Your task to perform on an android device: change text size in settings app Image 0: 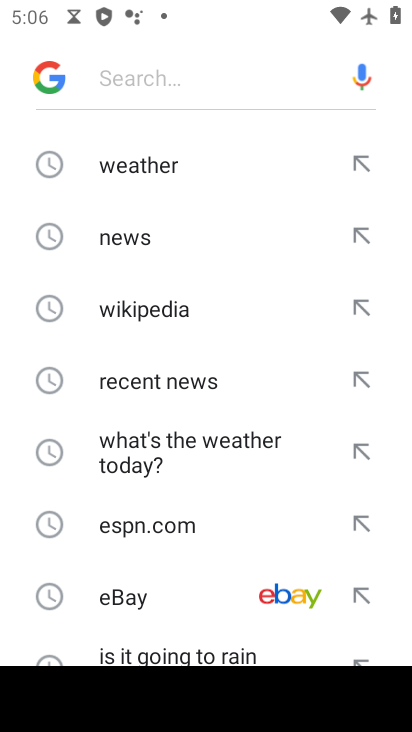
Step 0: press back button
Your task to perform on an android device: change text size in settings app Image 1: 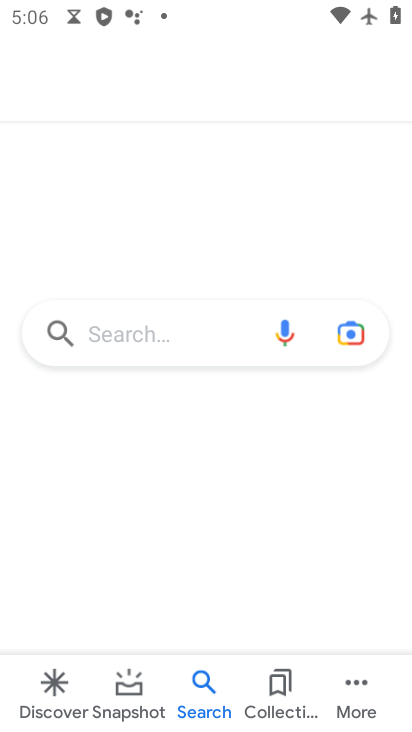
Step 1: press home button
Your task to perform on an android device: change text size in settings app Image 2: 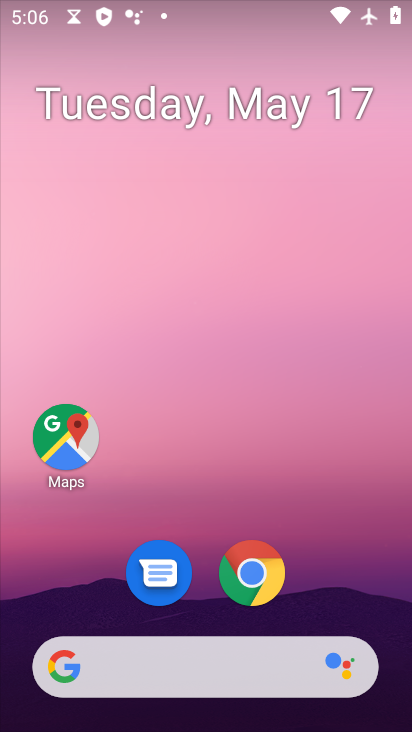
Step 2: drag from (319, 635) to (200, 61)
Your task to perform on an android device: change text size in settings app Image 3: 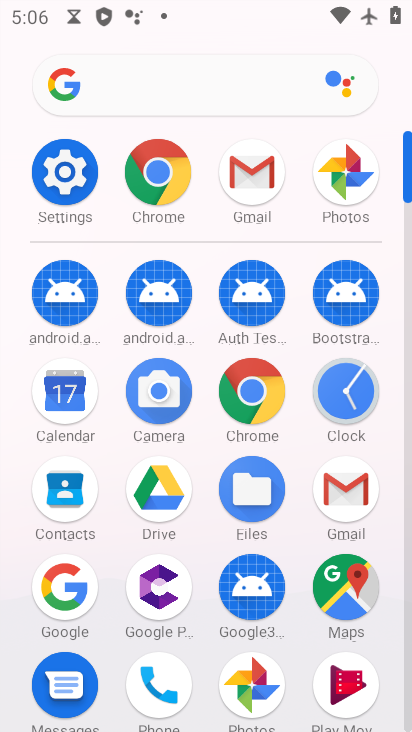
Step 3: click (54, 177)
Your task to perform on an android device: change text size in settings app Image 4: 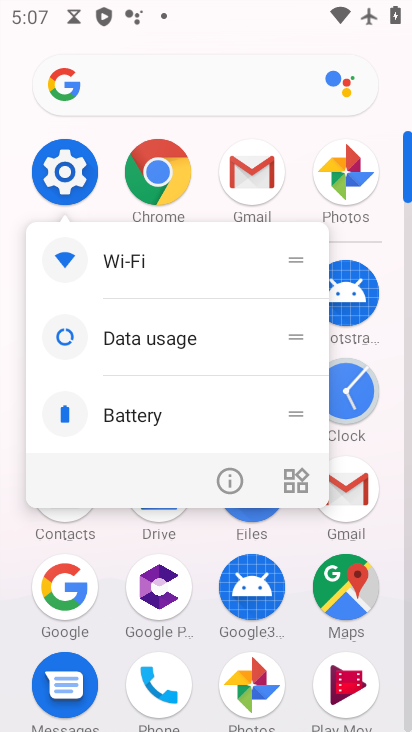
Step 4: click (60, 181)
Your task to perform on an android device: change text size in settings app Image 5: 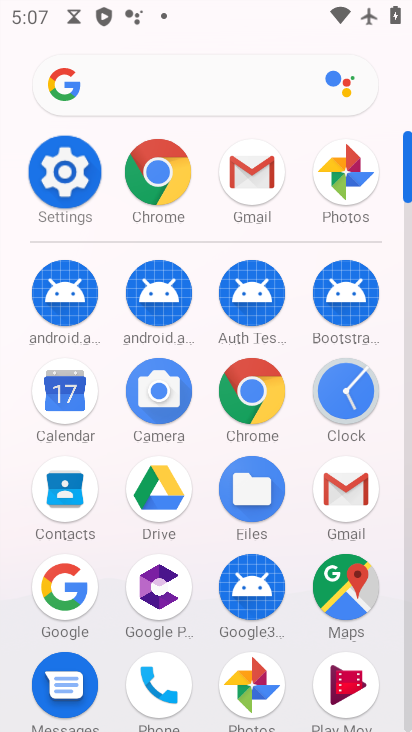
Step 5: click (65, 182)
Your task to perform on an android device: change text size in settings app Image 6: 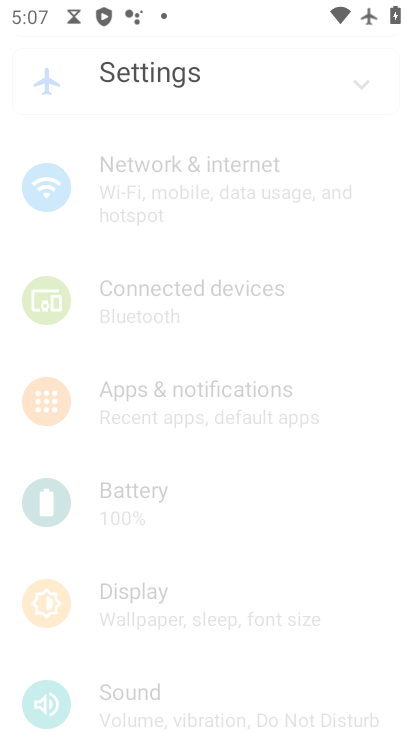
Step 6: click (66, 182)
Your task to perform on an android device: change text size in settings app Image 7: 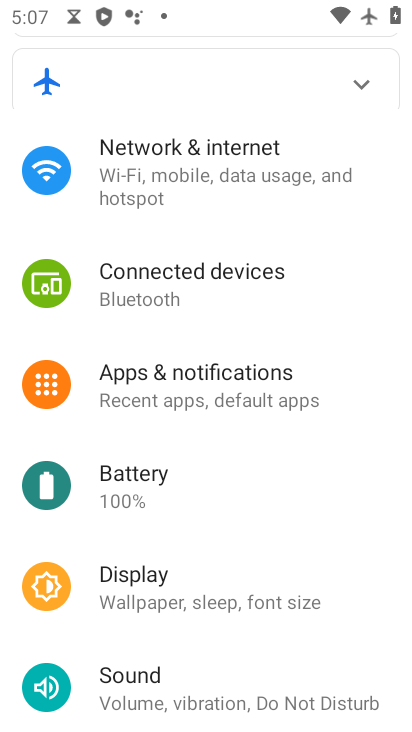
Step 7: click (66, 182)
Your task to perform on an android device: change text size in settings app Image 8: 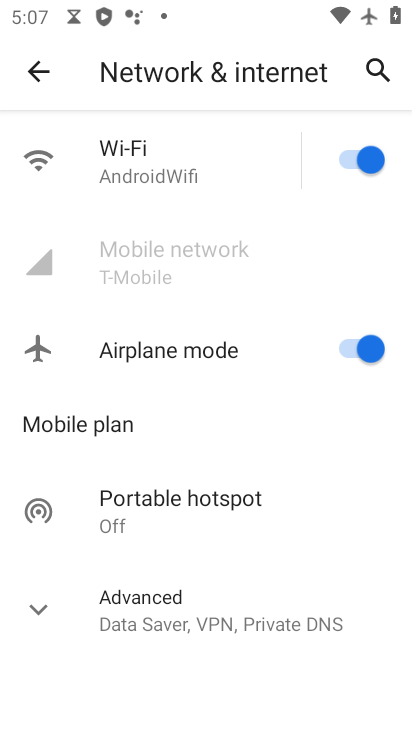
Step 8: click (33, 66)
Your task to perform on an android device: change text size in settings app Image 9: 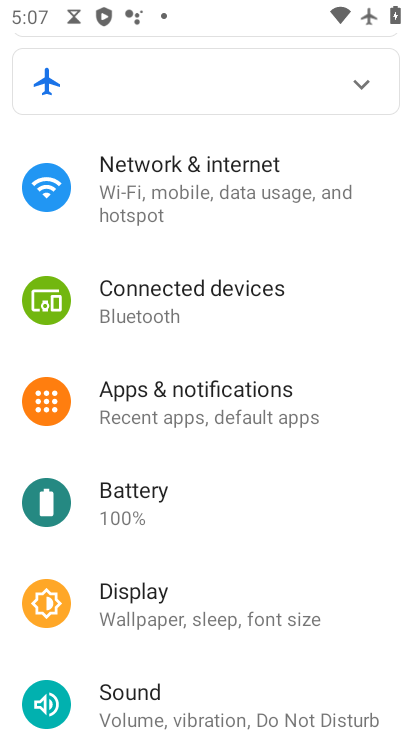
Step 9: drag from (179, 609) to (180, 247)
Your task to perform on an android device: change text size in settings app Image 10: 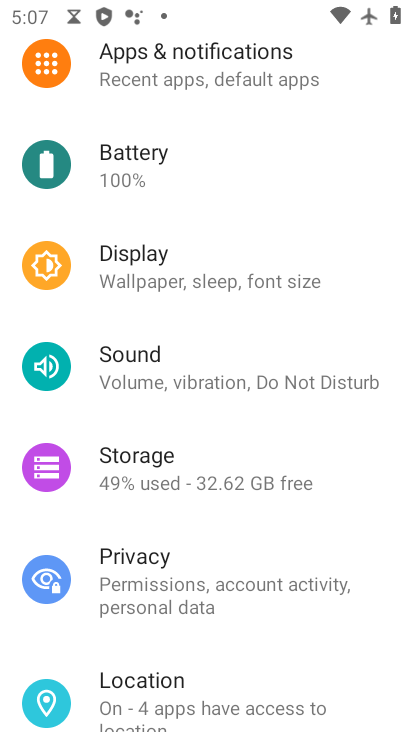
Step 10: drag from (214, 629) to (192, 381)
Your task to perform on an android device: change text size in settings app Image 11: 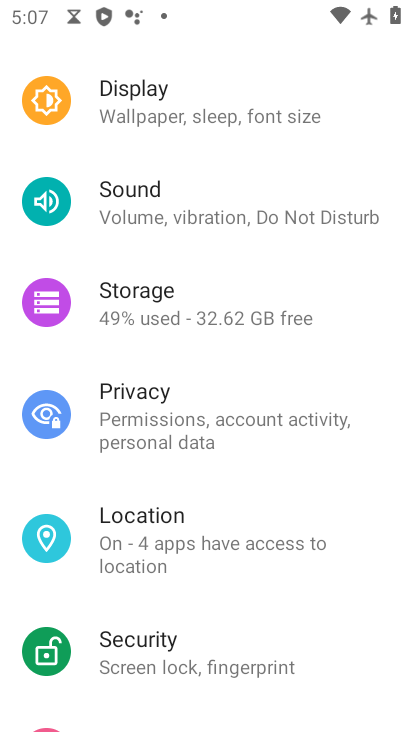
Step 11: click (133, 105)
Your task to perform on an android device: change text size in settings app Image 12: 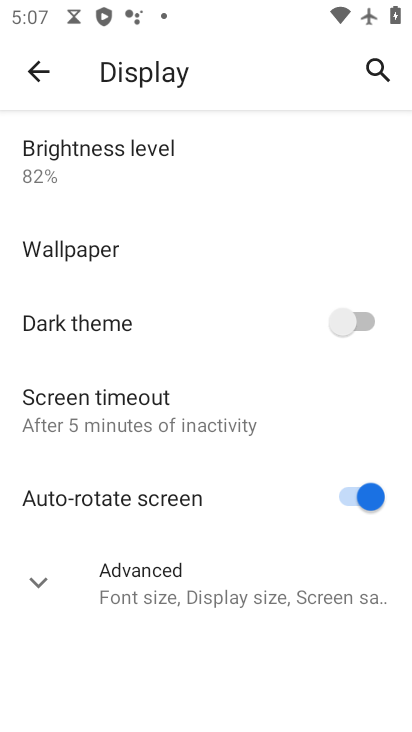
Step 12: click (129, 414)
Your task to perform on an android device: change text size in settings app Image 13: 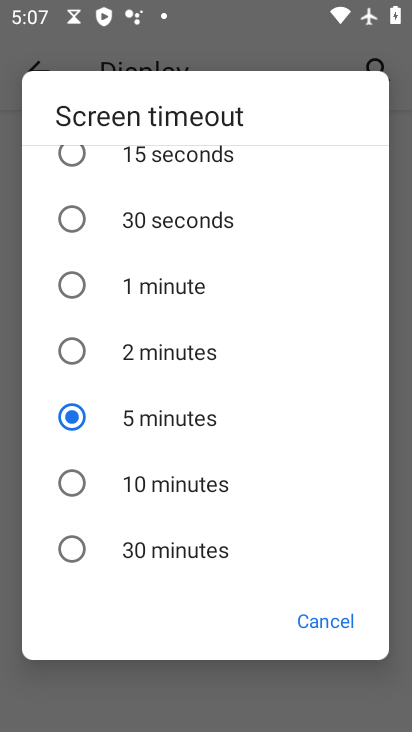
Step 13: click (331, 615)
Your task to perform on an android device: change text size in settings app Image 14: 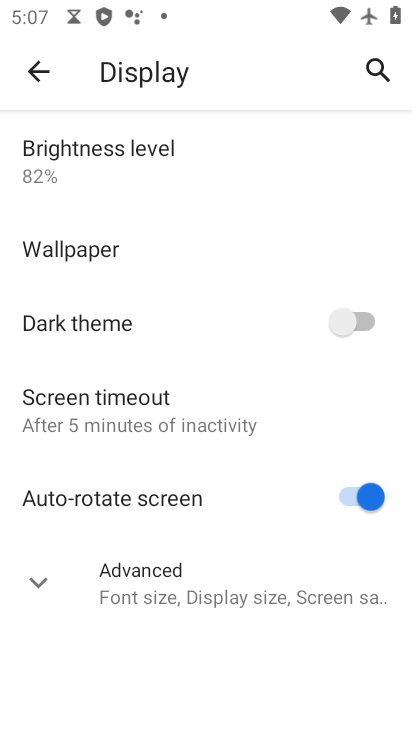
Step 14: click (167, 598)
Your task to perform on an android device: change text size in settings app Image 15: 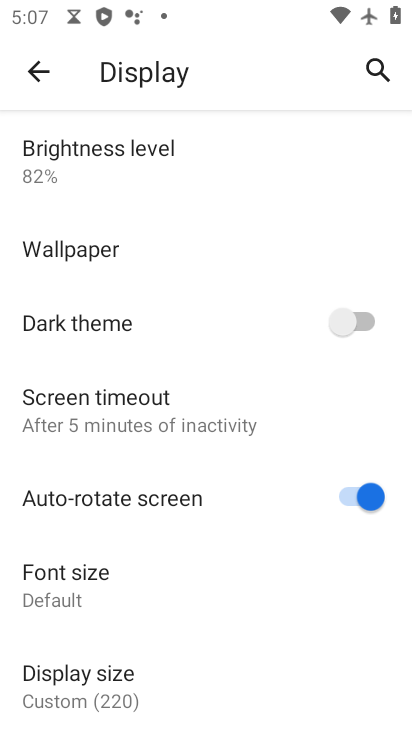
Step 15: click (65, 701)
Your task to perform on an android device: change text size in settings app Image 16: 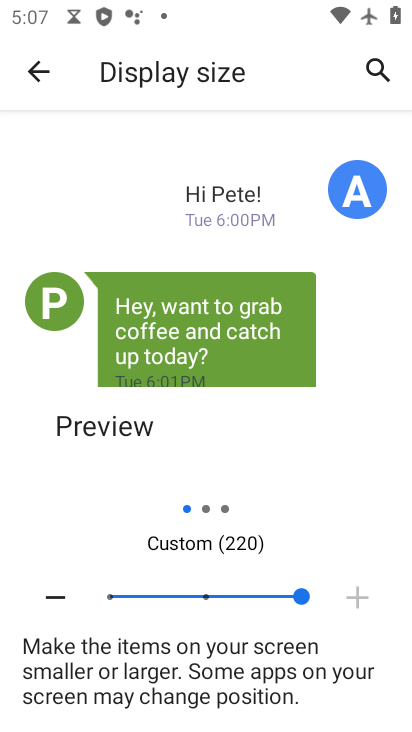
Step 16: click (196, 589)
Your task to perform on an android device: change text size in settings app Image 17: 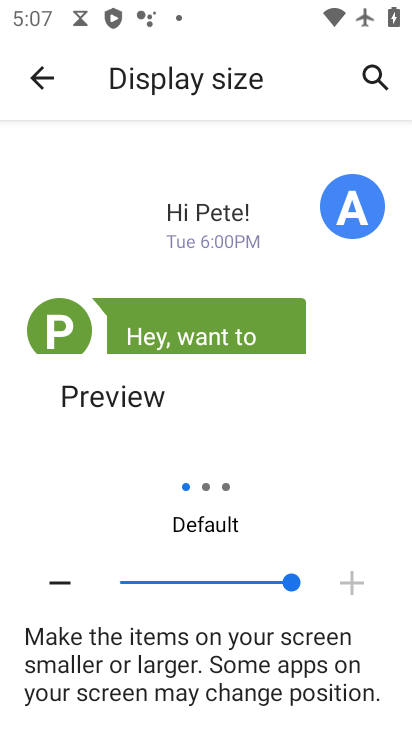
Step 17: click (33, 73)
Your task to perform on an android device: change text size in settings app Image 18: 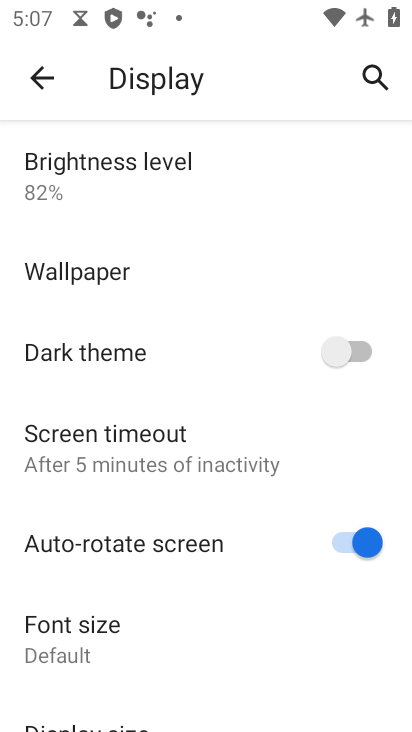
Step 18: click (71, 640)
Your task to perform on an android device: change text size in settings app Image 19: 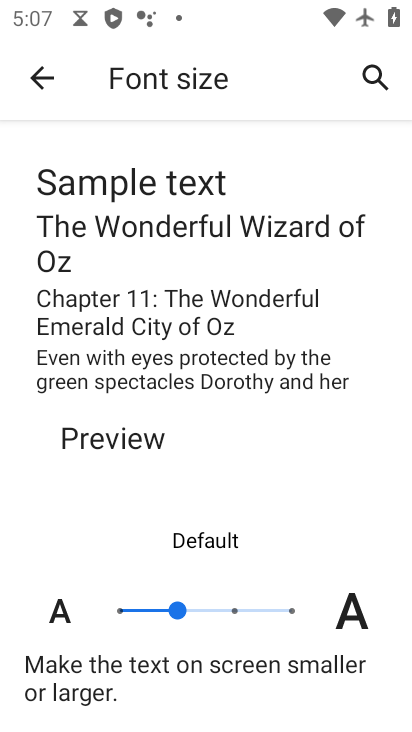
Step 19: click (221, 606)
Your task to perform on an android device: change text size in settings app Image 20: 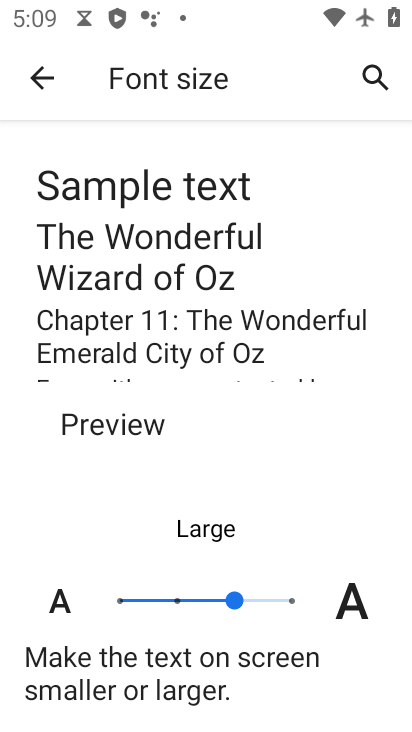
Step 20: press back button
Your task to perform on an android device: change text size in settings app Image 21: 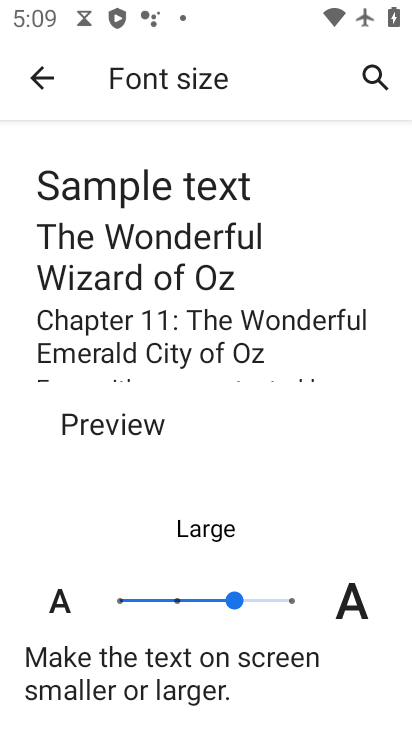
Step 21: press back button
Your task to perform on an android device: change text size in settings app Image 22: 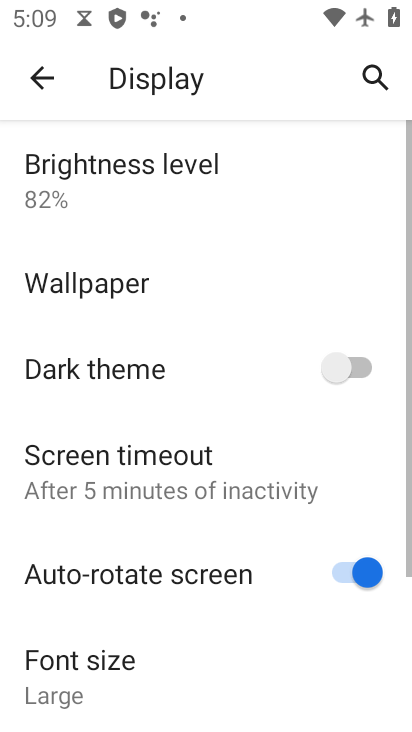
Step 22: press back button
Your task to perform on an android device: change text size in settings app Image 23: 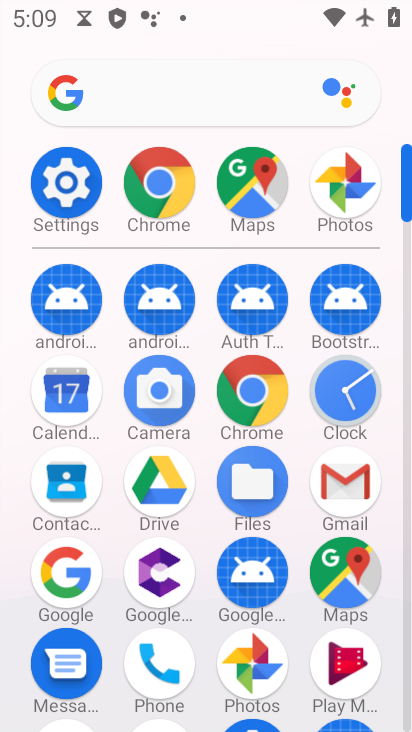
Step 23: click (58, 175)
Your task to perform on an android device: change text size in settings app Image 24: 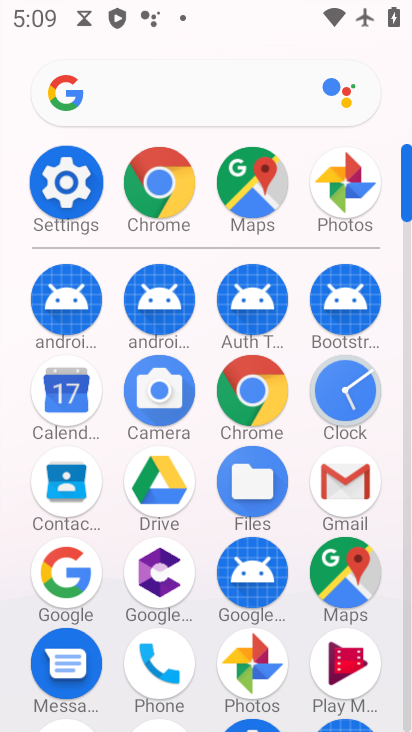
Step 24: click (58, 175)
Your task to perform on an android device: change text size in settings app Image 25: 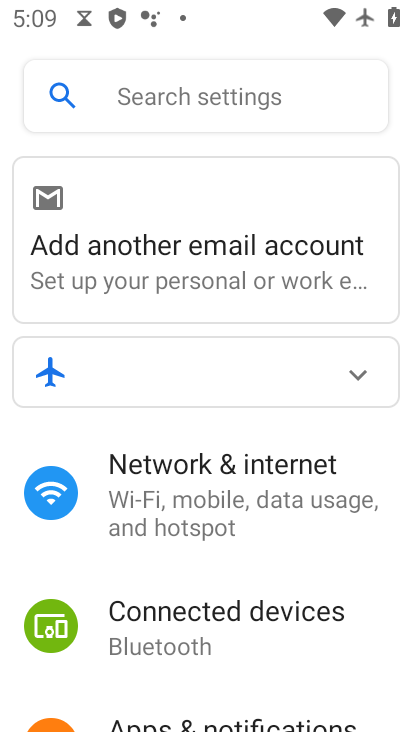
Step 25: drag from (255, 625) to (241, 4)
Your task to perform on an android device: change text size in settings app Image 26: 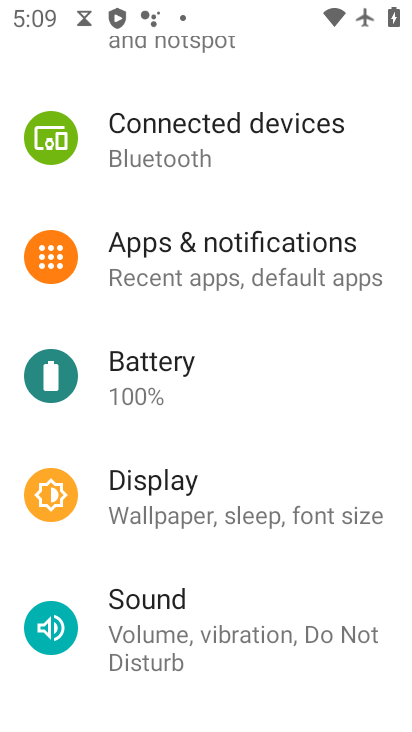
Step 26: drag from (196, 517) to (261, 94)
Your task to perform on an android device: change text size in settings app Image 27: 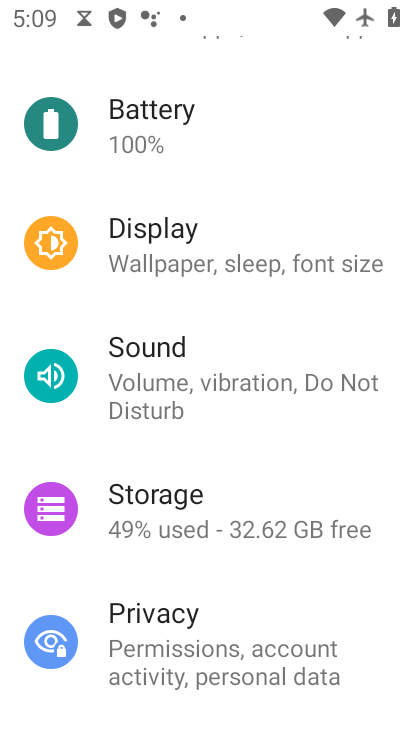
Step 27: drag from (258, 498) to (258, 110)
Your task to perform on an android device: change text size in settings app Image 28: 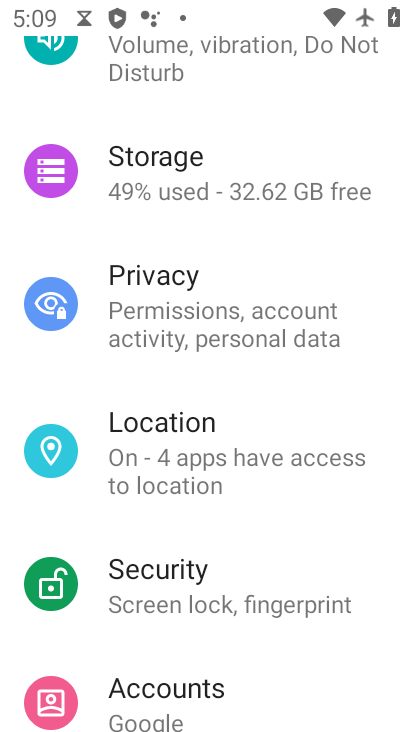
Step 28: drag from (184, 180) to (242, 490)
Your task to perform on an android device: change text size in settings app Image 29: 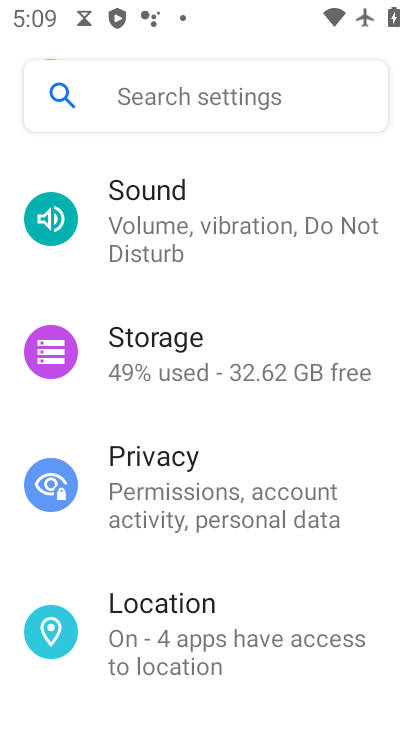
Step 29: drag from (184, 244) to (248, 582)
Your task to perform on an android device: change text size in settings app Image 30: 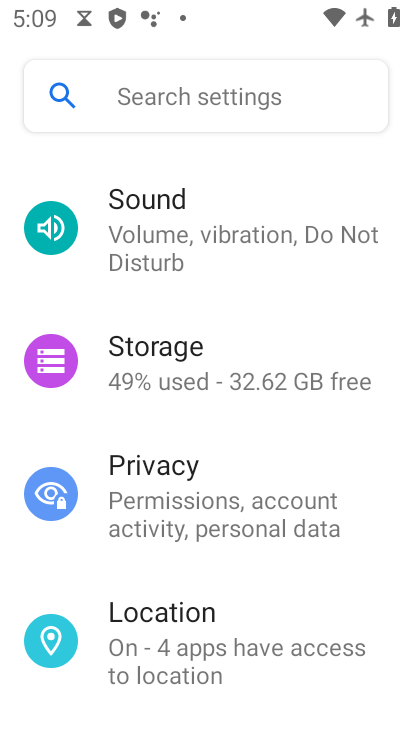
Step 30: drag from (216, 564) to (212, 109)
Your task to perform on an android device: change text size in settings app Image 31: 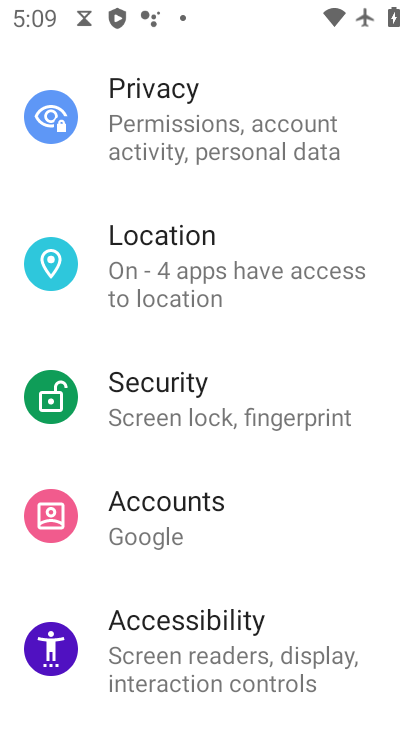
Step 31: drag from (197, 571) to (162, 238)
Your task to perform on an android device: change text size in settings app Image 32: 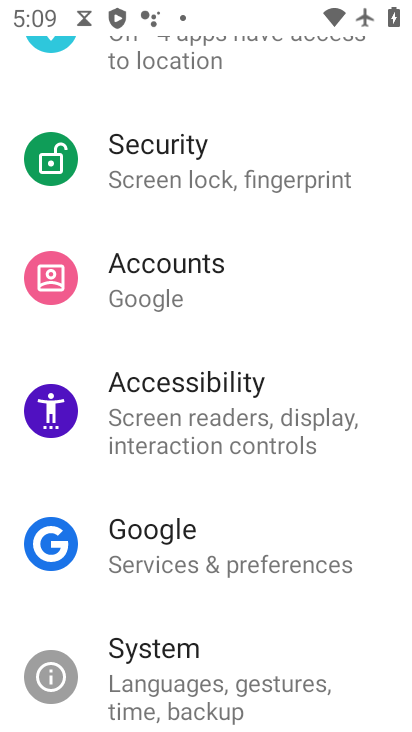
Step 32: drag from (162, 235) to (218, 699)
Your task to perform on an android device: change text size in settings app Image 33: 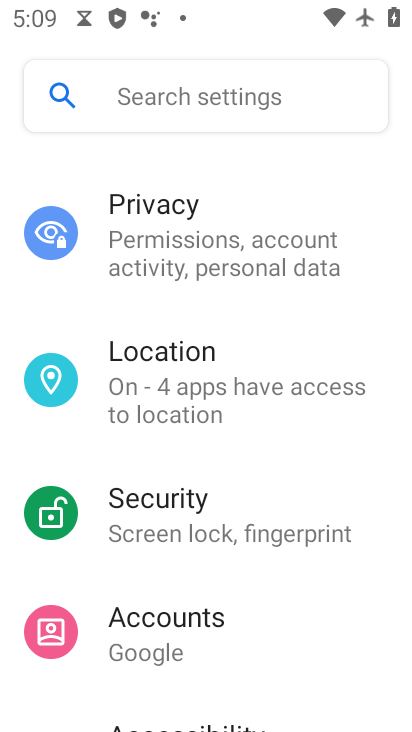
Step 33: drag from (233, 275) to (258, 722)
Your task to perform on an android device: change text size in settings app Image 34: 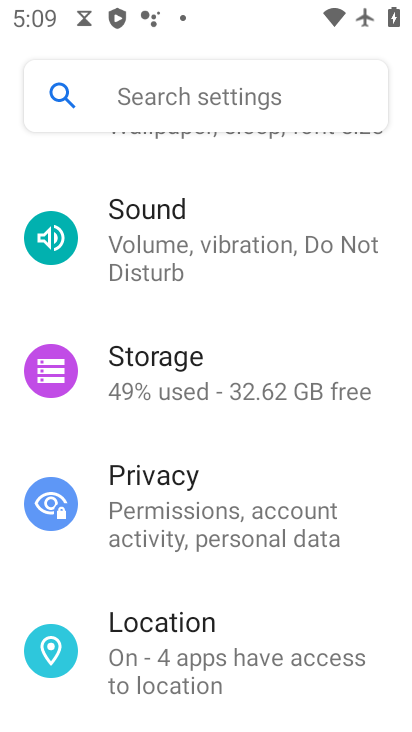
Step 34: drag from (202, 425) to (216, 703)
Your task to perform on an android device: change text size in settings app Image 35: 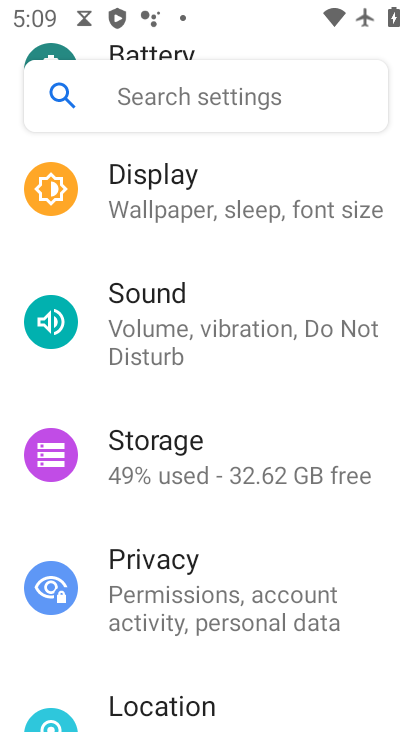
Step 35: drag from (155, 398) to (269, 727)
Your task to perform on an android device: change text size in settings app Image 36: 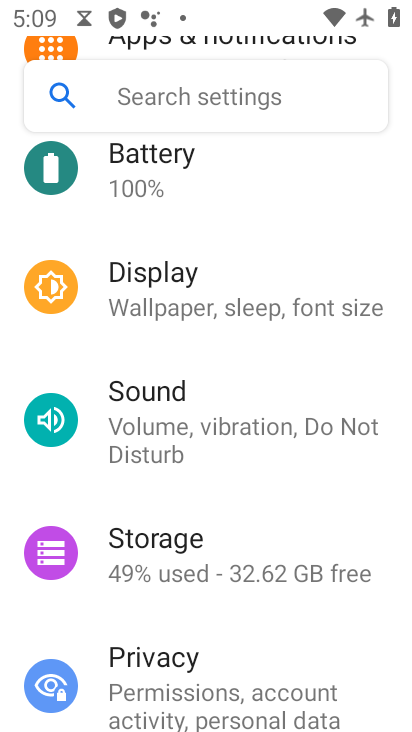
Step 36: click (180, 304)
Your task to perform on an android device: change text size in settings app Image 37: 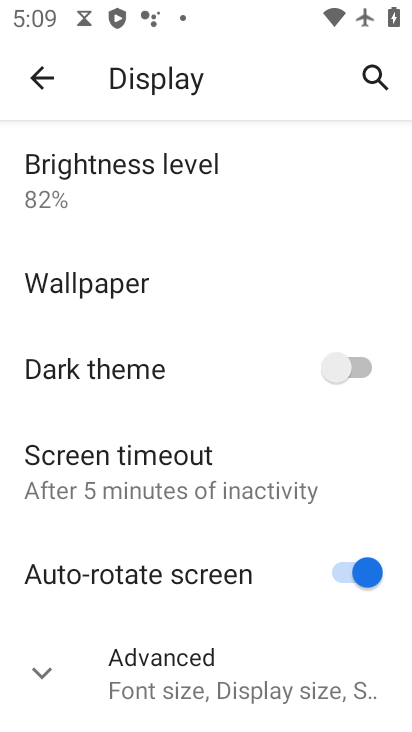
Step 37: drag from (186, 608) to (192, 166)
Your task to perform on an android device: change text size in settings app Image 38: 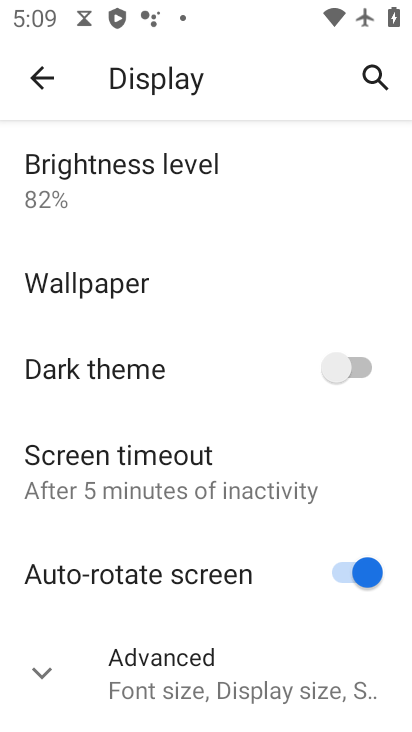
Step 38: click (183, 660)
Your task to perform on an android device: change text size in settings app Image 39: 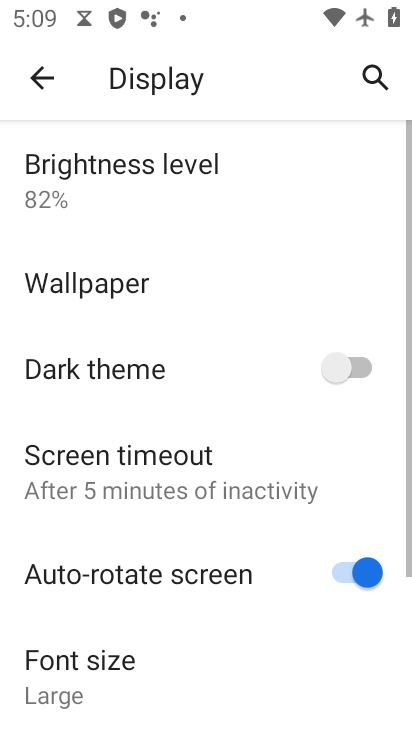
Step 39: drag from (181, 629) to (162, 196)
Your task to perform on an android device: change text size in settings app Image 40: 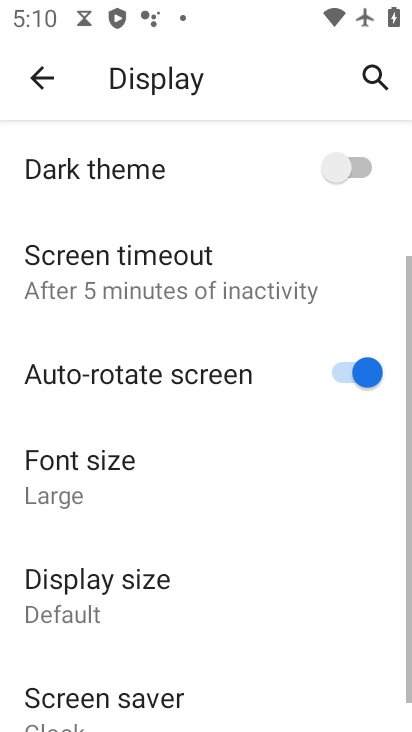
Step 40: drag from (223, 523) to (200, 91)
Your task to perform on an android device: change text size in settings app Image 41: 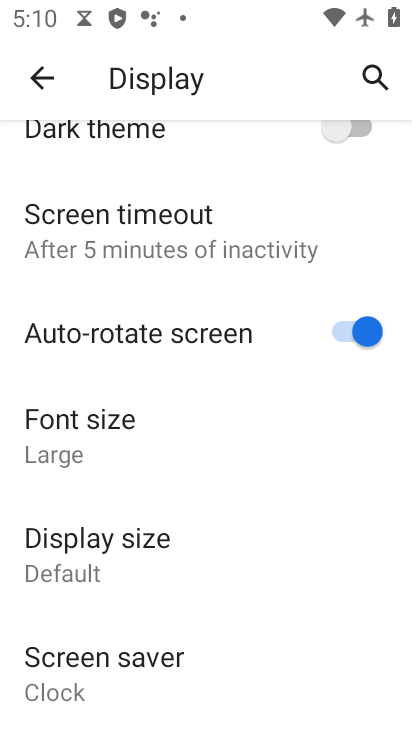
Step 41: click (61, 435)
Your task to perform on an android device: change text size in settings app Image 42: 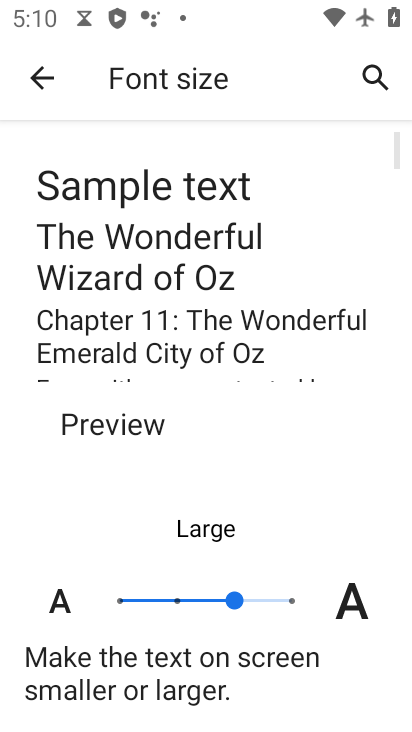
Step 42: click (181, 605)
Your task to perform on an android device: change text size in settings app Image 43: 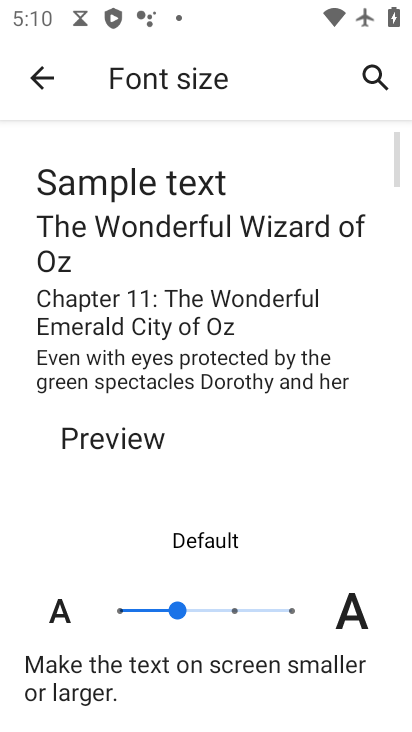
Step 43: task complete